Your task to perform on an android device: Do I have any events today? Image 0: 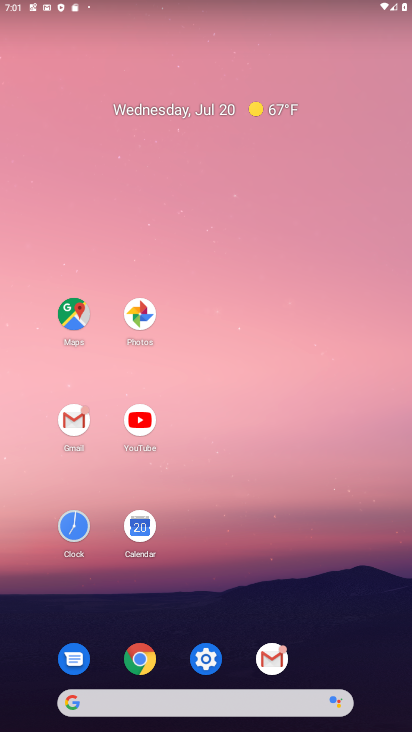
Step 0: click (138, 527)
Your task to perform on an android device: Do I have any events today? Image 1: 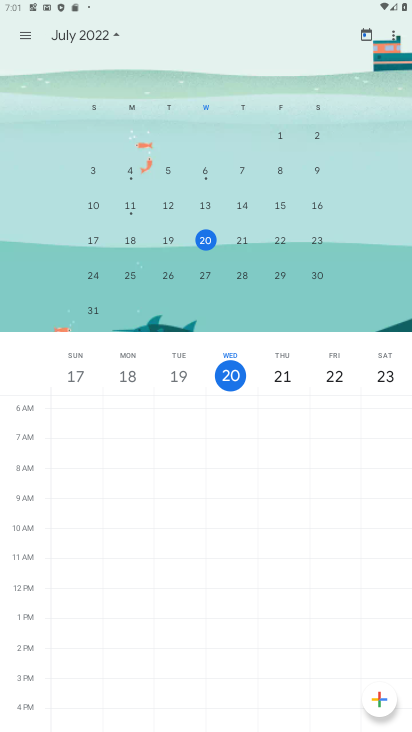
Step 1: click (203, 246)
Your task to perform on an android device: Do I have any events today? Image 2: 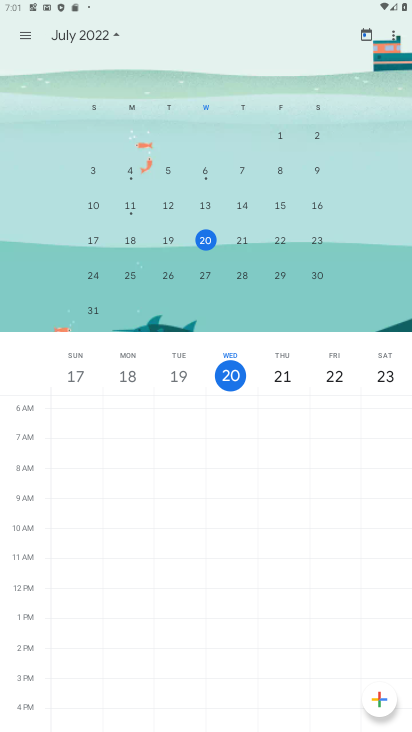
Step 2: click (203, 246)
Your task to perform on an android device: Do I have any events today? Image 3: 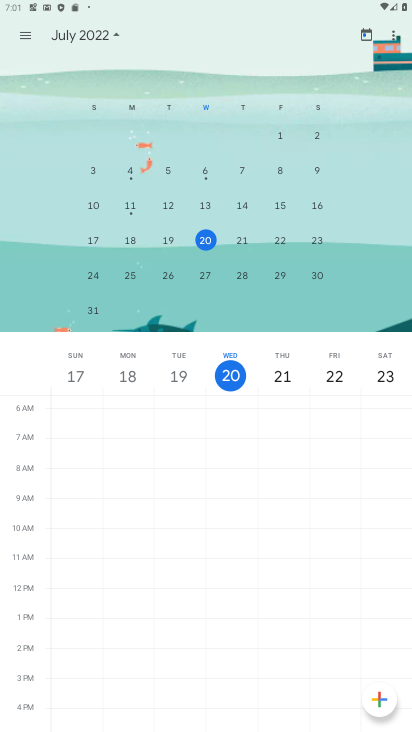
Step 3: click (206, 243)
Your task to perform on an android device: Do I have any events today? Image 4: 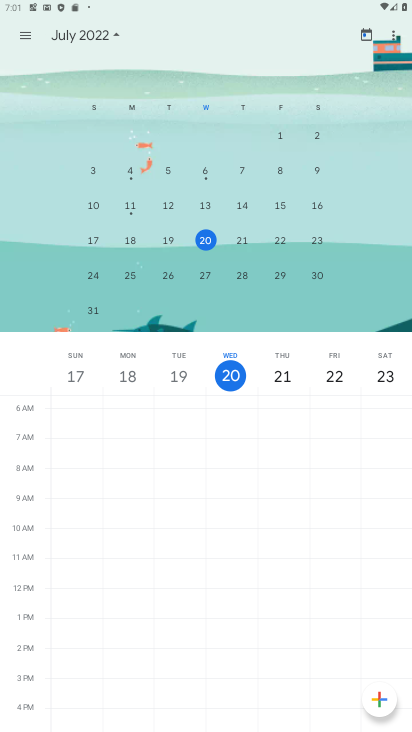
Step 4: click (206, 243)
Your task to perform on an android device: Do I have any events today? Image 5: 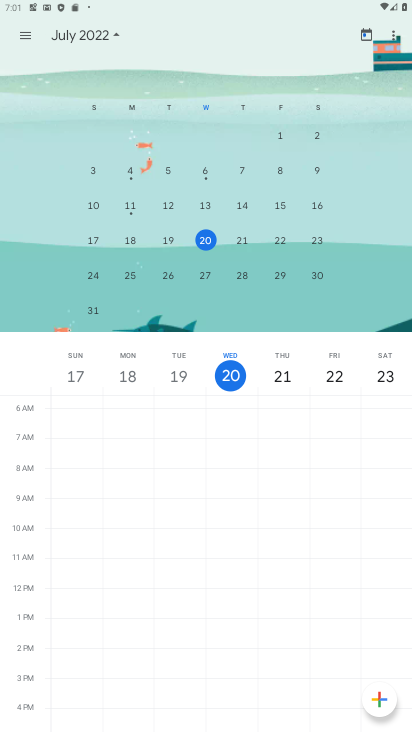
Step 5: drag from (284, 582) to (284, 330)
Your task to perform on an android device: Do I have any events today? Image 6: 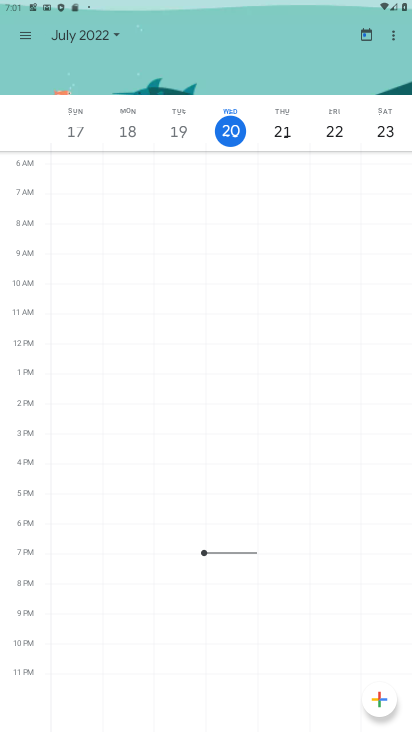
Step 6: click (232, 132)
Your task to perform on an android device: Do I have any events today? Image 7: 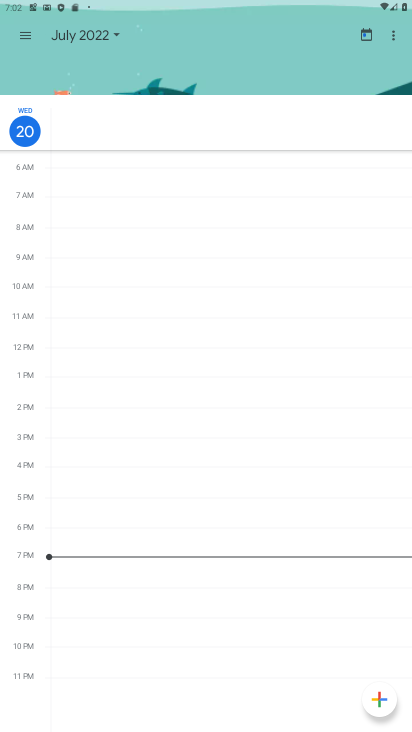
Step 7: task complete